Your task to perform on an android device: Open Google Maps Image 0: 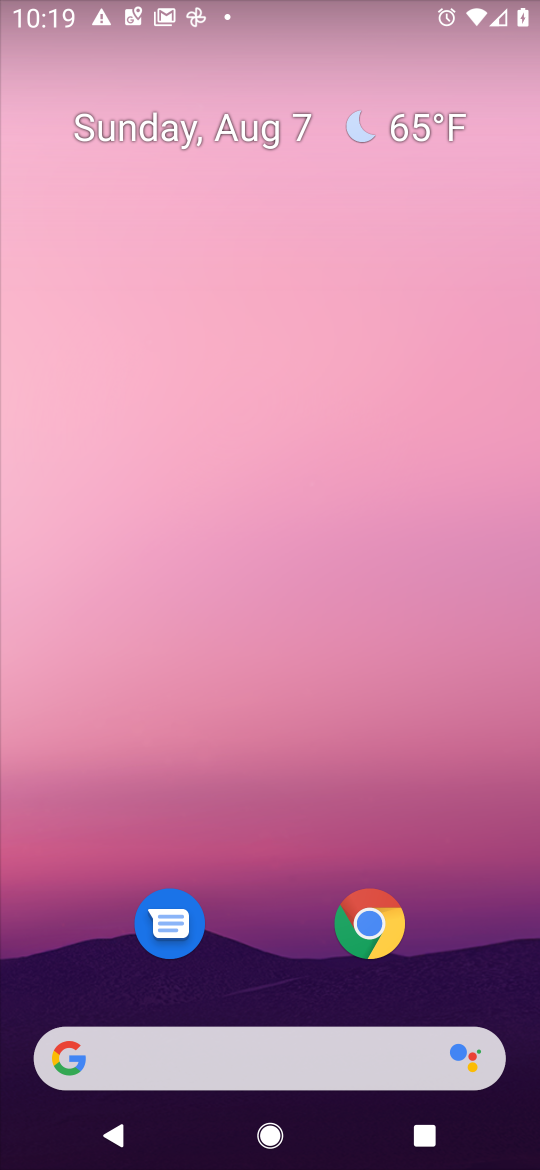
Step 0: drag from (450, 962) to (287, 164)
Your task to perform on an android device: Open Google Maps Image 1: 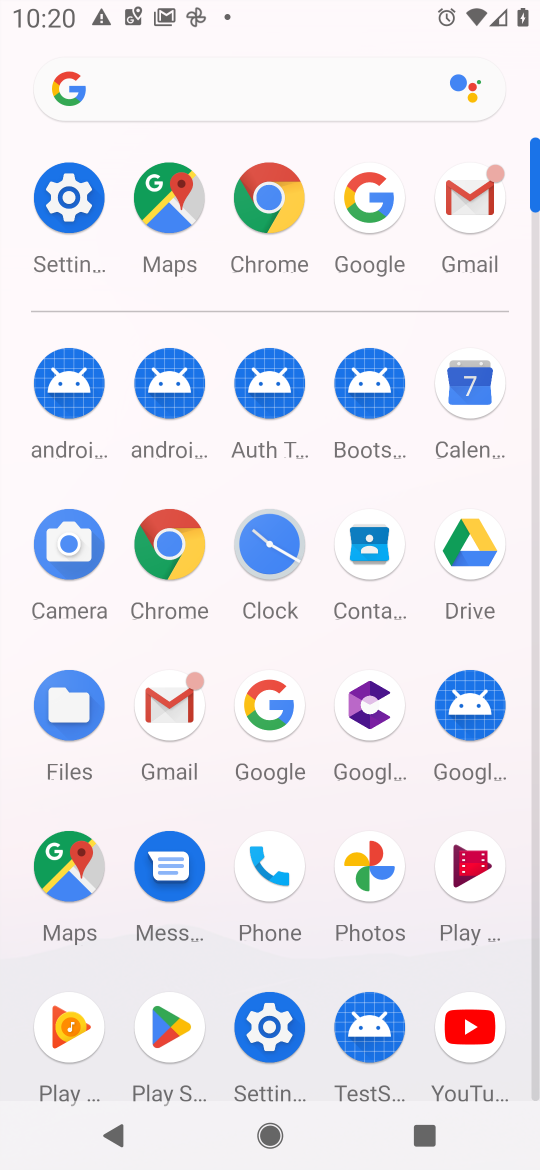
Step 1: click (66, 875)
Your task to perform on an android device: Open Google Maps Image 2: 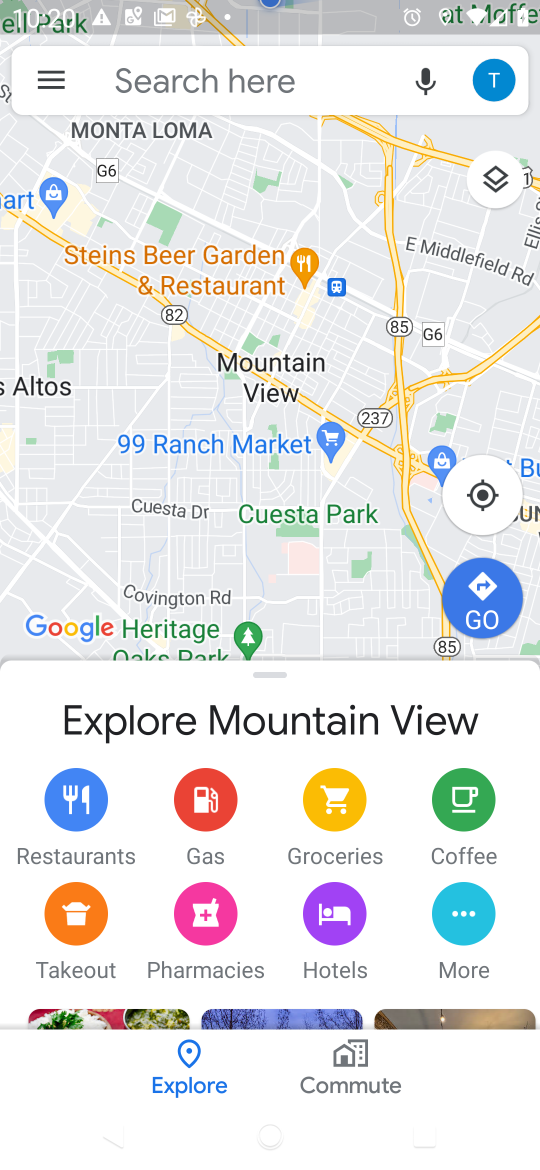
Step 2: task complete